Your task to perform on an android device: find which apps use the phone's location Image 0: 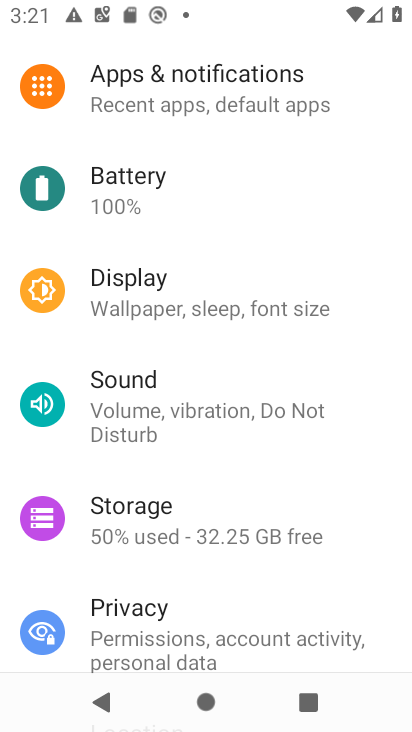
Step 0: press home button
Your task to perform on an android device: find which apps use the phone's location Image 1: 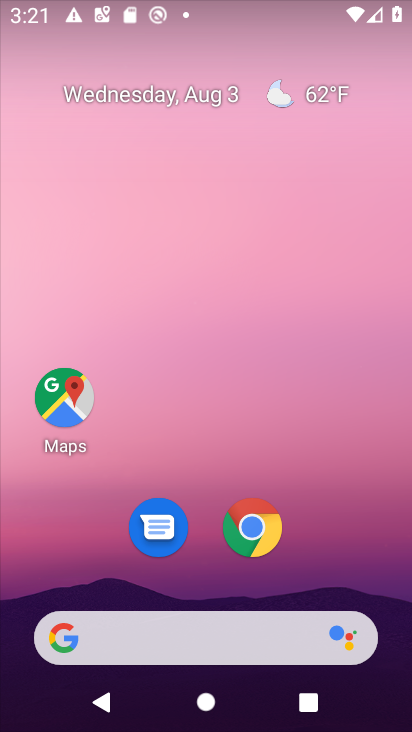
Step 1: drag from (327, 562) to (238, 111)
Your task to perform on an android device: find which apps use the phone's location Image 2: 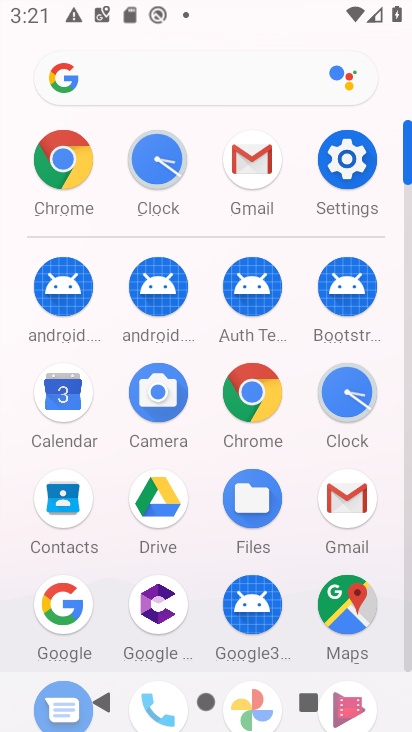
Step 2: drag from (206, 547) to (183, 197)
Your task to perform on an android device: find which apps use the phone's location Image 3: 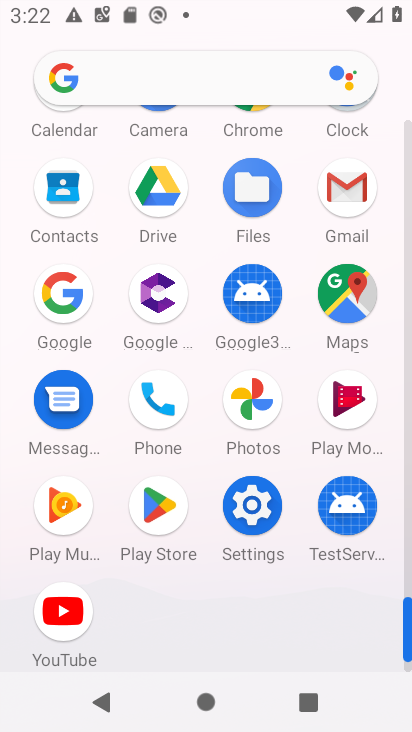
Step 3: click (250, 512)
Your task to perform on an android device: find which apps use the phone's location Image 4: 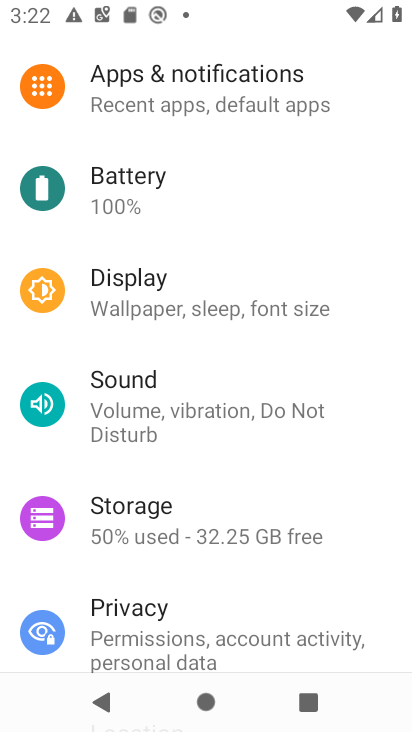
Step 4: drag from (351, 544) to (356, 175)
Your task to perform on an android device: find which apps use the phone's location Image 5: 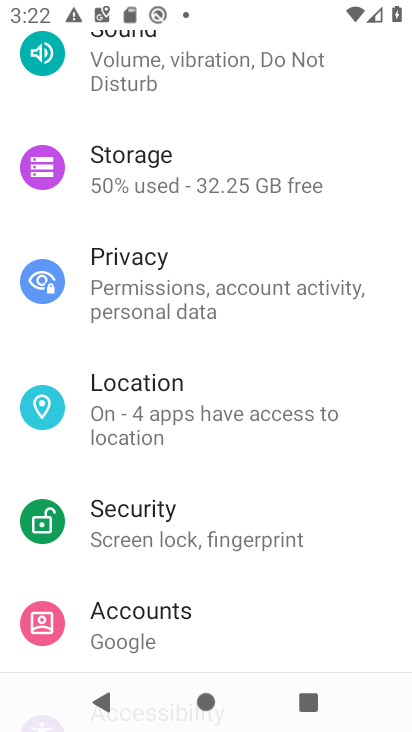
Step 5: click (215, 416)
Your task to perform on an android device: find which apps use the phone's location Image 6: 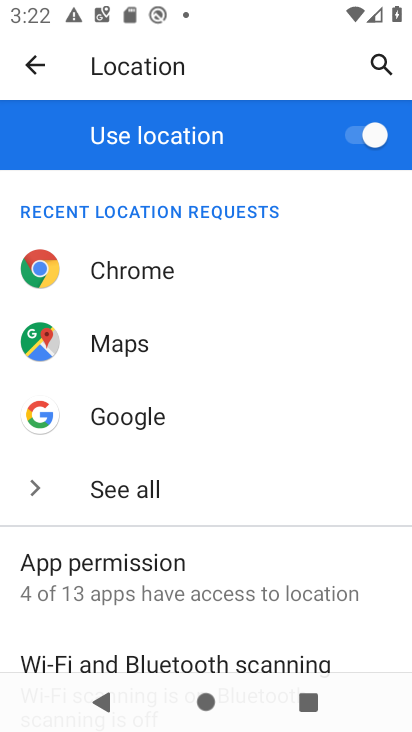
Step 6: drag from (251, 578) to (266, 314)
Your task to perform on an android device: find which apps use the phone's location Image 7: 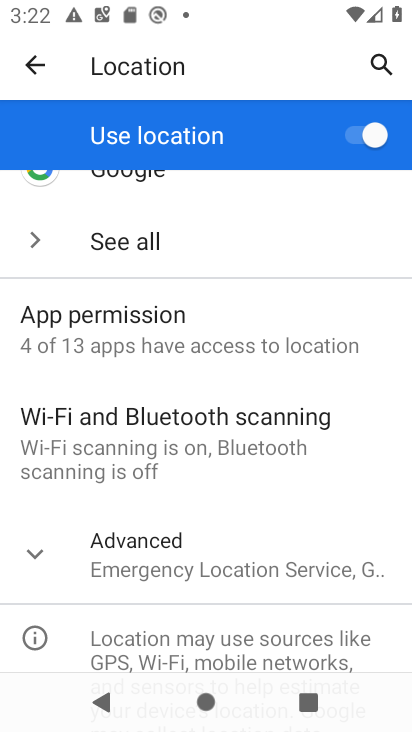
Step 7: click (223, 344)
Your task to perform on an android device: find which apps use the phone's location Image 8: 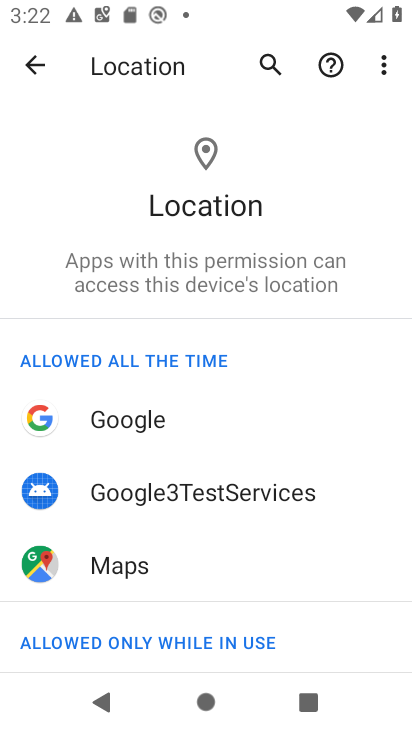
Step 8: task complete